Your task to perform on an android device: When is my next appointment? Image 0: 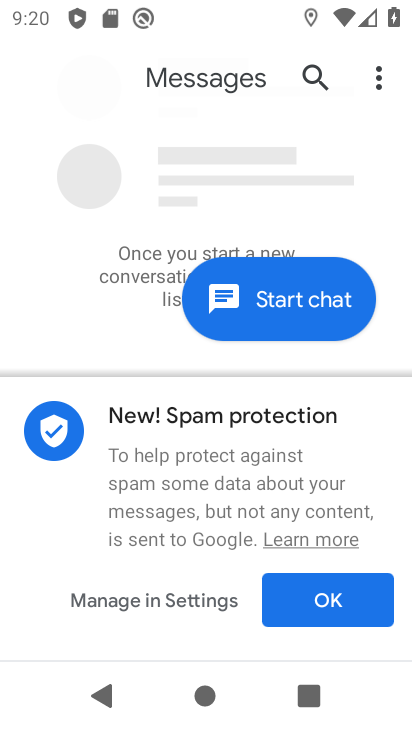
Step 0: press back button
Your task to perform on an android device: When is my next appointment? Image 1: 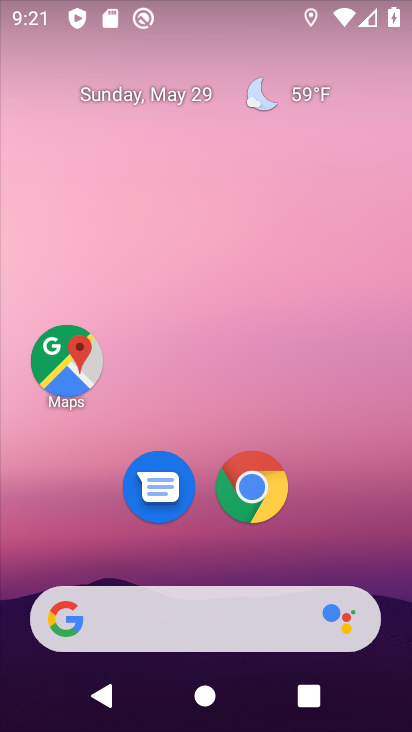
Step 1: drag from (326, 536) to (244, 65)
Your task to perform on an android device: When is my next appointment? Image 2: 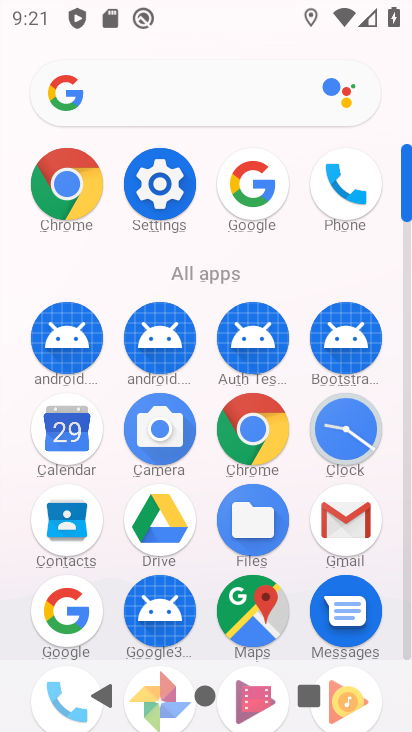
Step 2: click (71, 430)
Your task to perform on an android device: When is my next appointment? Image 3: 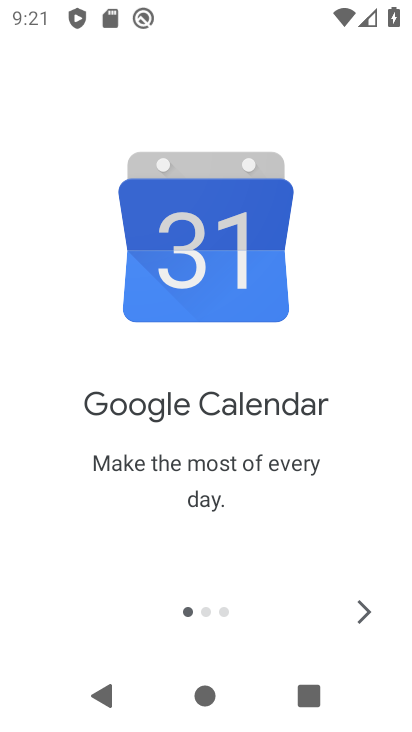
Step 3: click (365, 608)
Your task to perform on an android device: When is my next appointment? Image 4: 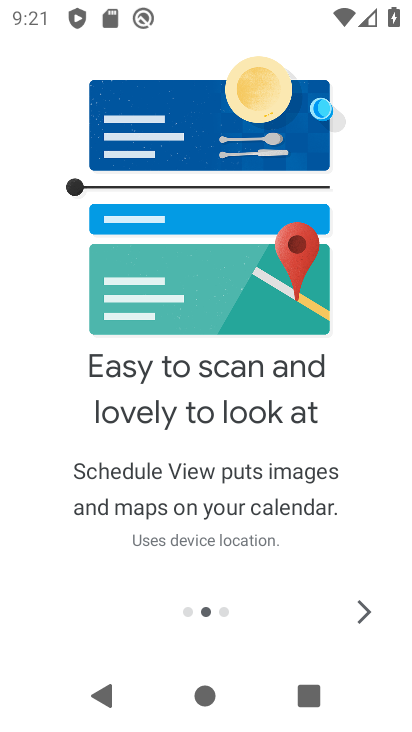
Step 4: click (365, 608)
Your task to perform on an android device: When is my next appointment? Image 5: 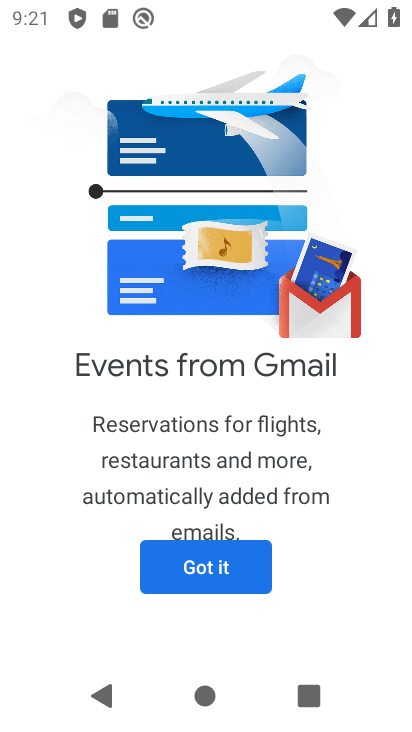
Step 5: click (218, 569)
Your task to perform on an android device: When is my next appointment? Image 6: 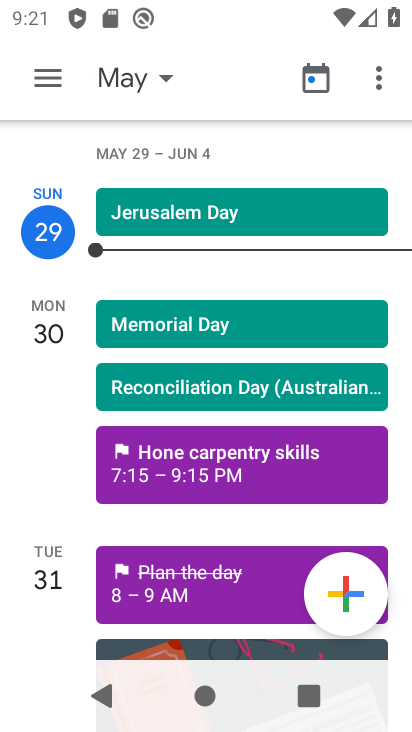
Step 6: click (163, 76)
Your task to perform on an android device: When is my next appointment? Image 7: 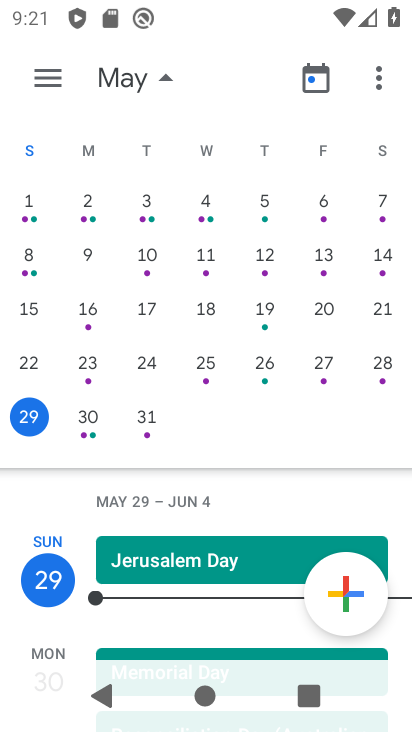
Step 7: click (93, 426)
Your task to perform on an android device: When is my next appointment? Image 8: 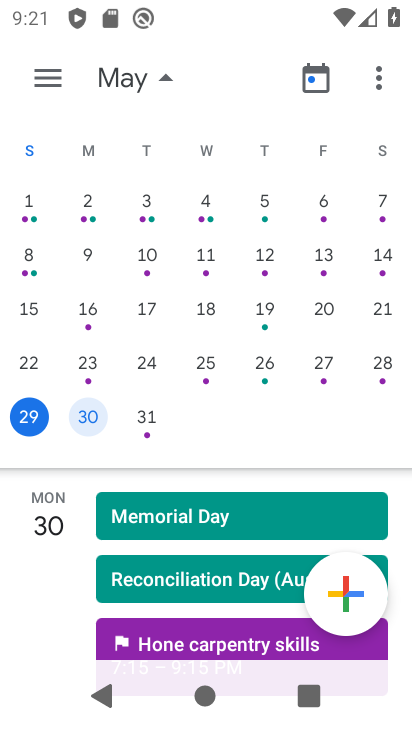
Step 8: click (47, 86)
Your task to perform on an android device: When is my next appointment? Image 9: 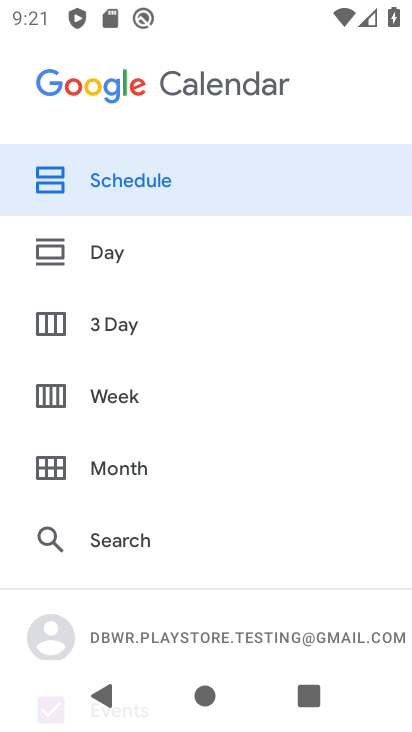
Step 9: click (102, 172)
Your task to perform on an android device: When is my next appointment? Image 10: 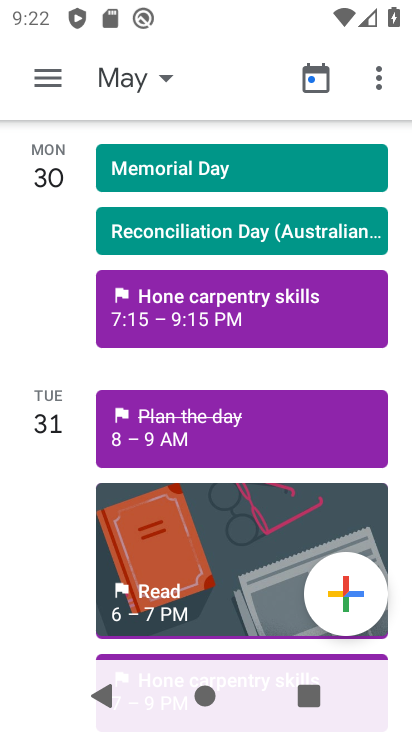
Step 10: task complete